Your task to perform on an android device: Install the Wikipedia app Image 0: 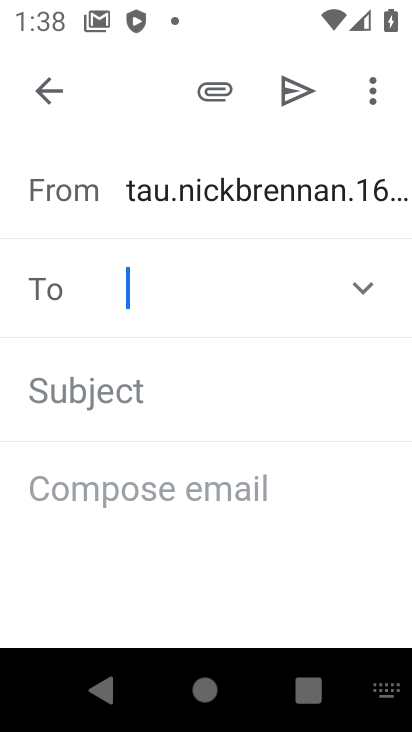
Step 0: press home button
Your task to perform on an android device: Install the Wikipedia app Image 1: 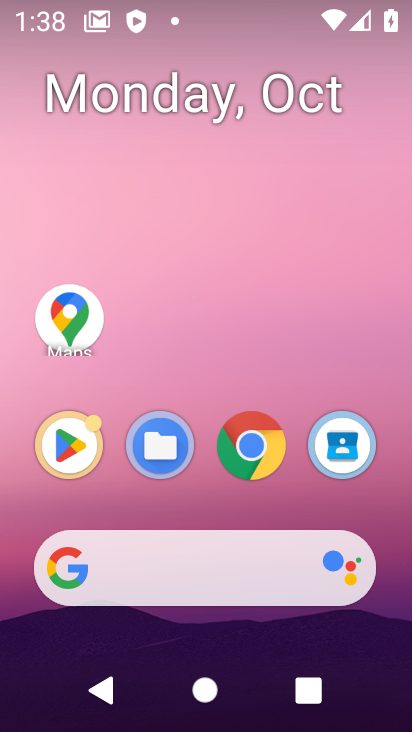
Step 1: click (233, 561)
Your task to perform on an android device: Install the Wikipedia app Image 2: 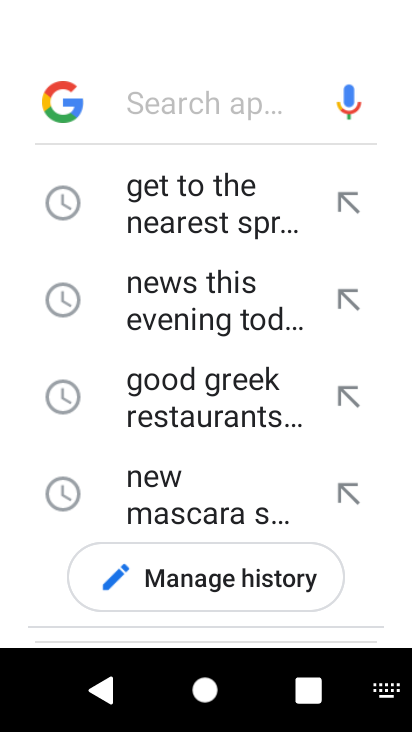
Step 2: press home button
Your task to perform on an android device: Install the Wikipedia app Image 3: 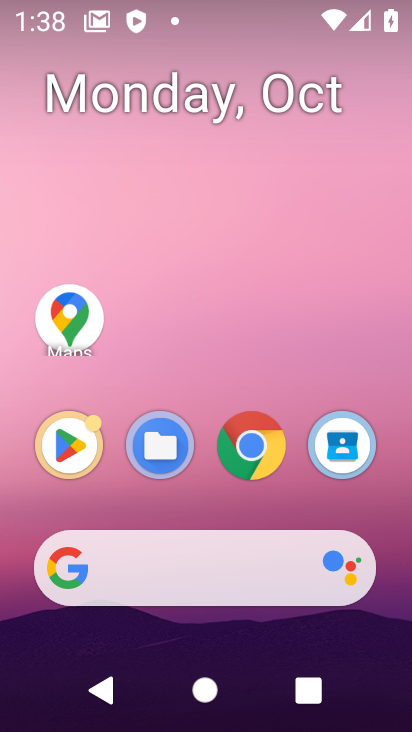
Step 3: click (83, 445)
Your task to perform on an android device: Install the Wikipedia app Image 4: 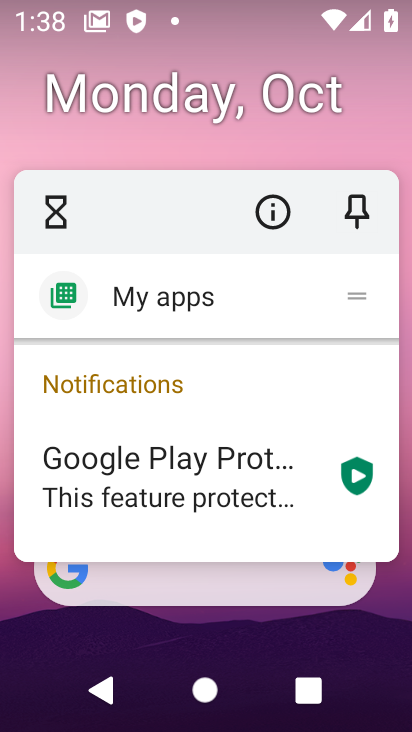
Step 4: click (156, 118)
Your task to perform on an android device: Install the Wikipedia app Image 5: 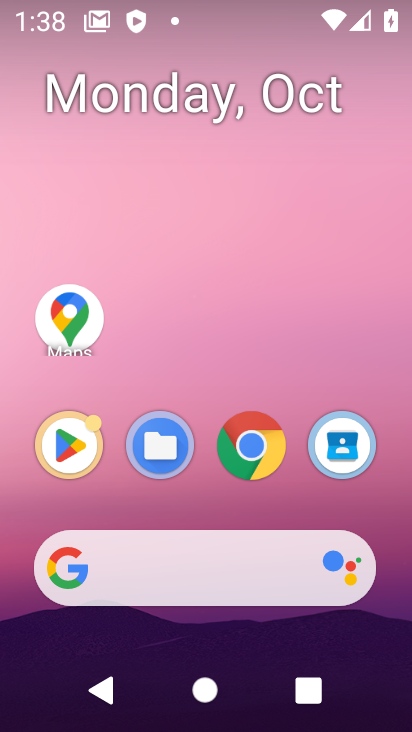
Step 5: click (78, 452)
Your task to perform on an android device: Install the Wikipedia app Image 6: 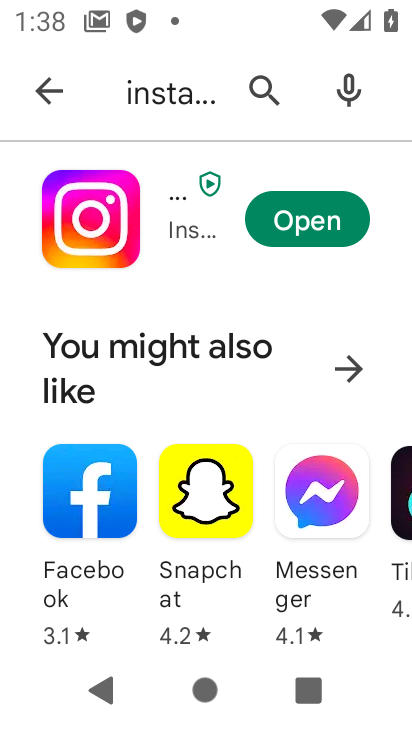
Step 6: click (264, 96)
Your task to perform on an android device: Install the Wikipedia app Image 7: 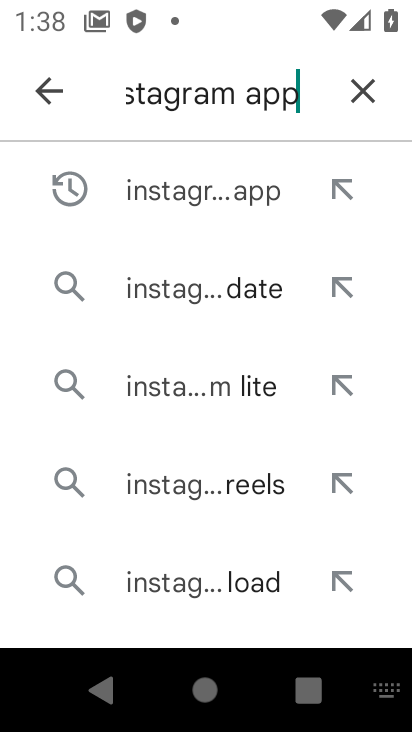
Step 7: click (333, 100)
Your task to perform on an android device: Install the Wikipedia app Image 8: 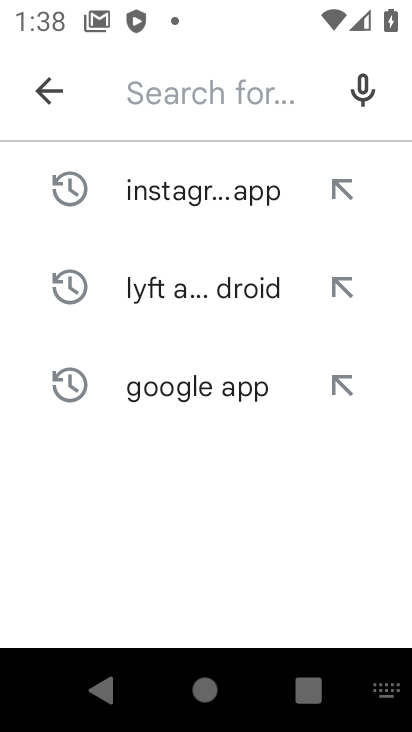
Step 8: type "Wikipedia"
Your task to perform on an android device: Install the Wikipedia app Image 9: 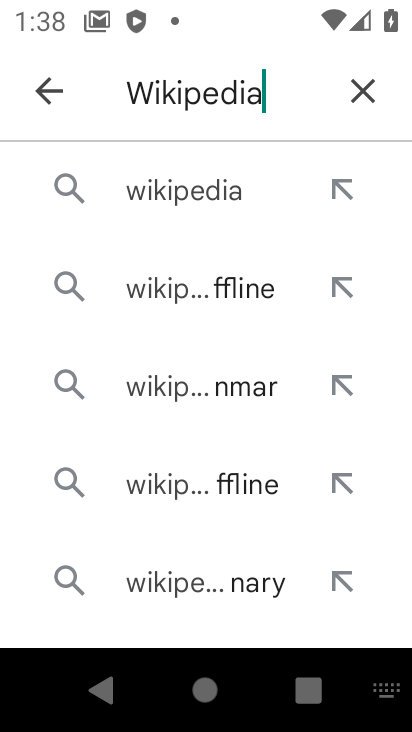
Step 9: type ""
Your task to perform on an android device: Install the Wikipedia app Image 10: 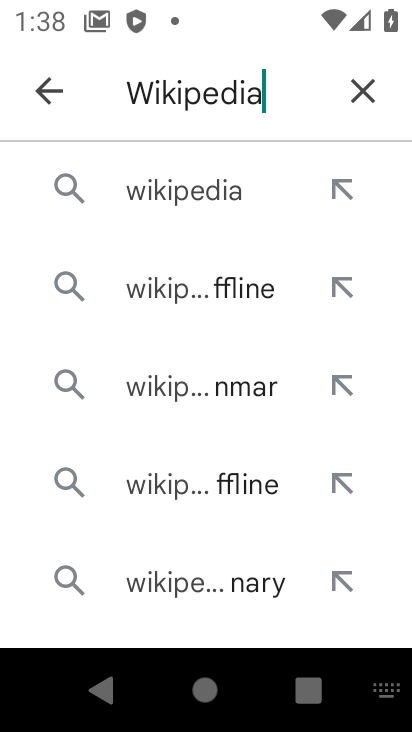
Step 10: click (153, 185)
Your task to perform on an android device: Install the Wikipedia app Image 11: 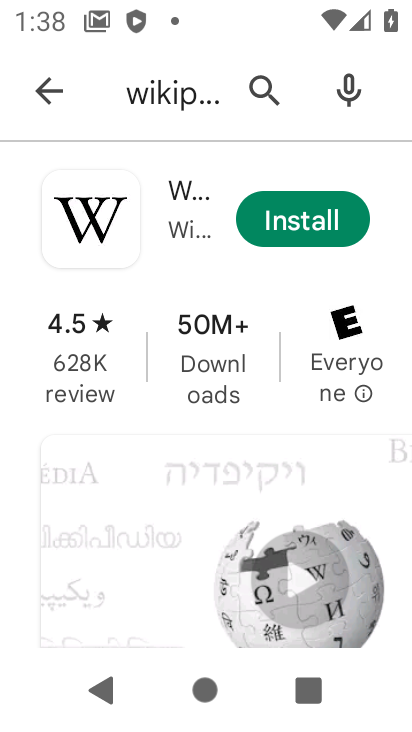
Step 11: click (313, 209)
Your task to perform on an android device: Install the Wikipedia app Image 12: 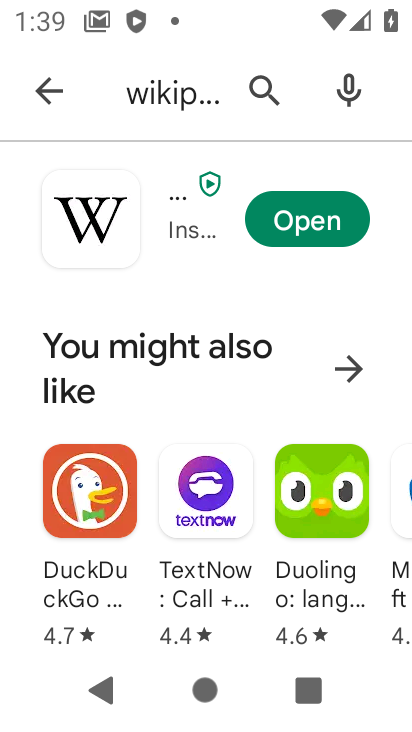
Step 12: task complete